Your task to perform on an android device: delete a single message in the gmail app Image 0: 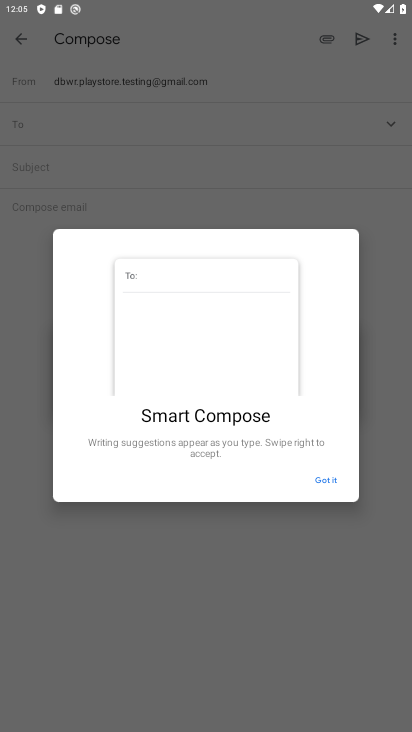
Step 0: press home button
Your task to perform on an android device: delete a single message in the gmail app Image 1: 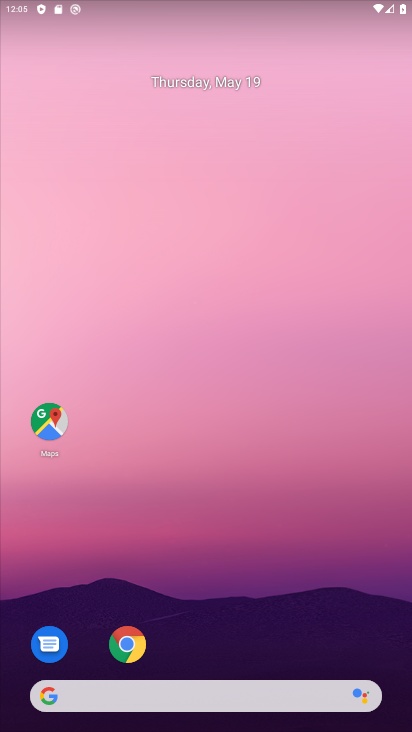
Step 1: drag from (371, 593) to (373, 140)
Your task to perform on an android device: delete a single message in the gmail app Image 2: 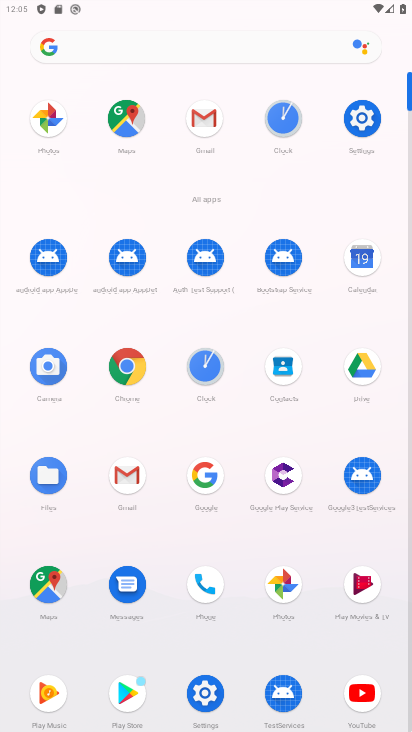
Step 2: click (116, 481)
Your task to perform on an android device: delete a single message in the gmail app Image 3: 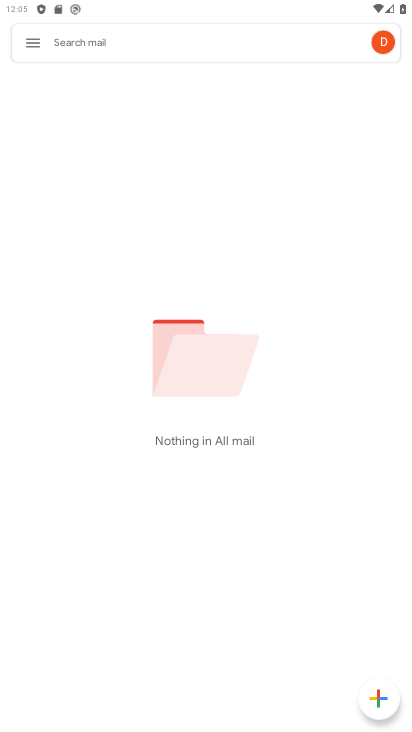
Step 3: task complete